Your task to perform on an android device: all mails in gmail Image 0: 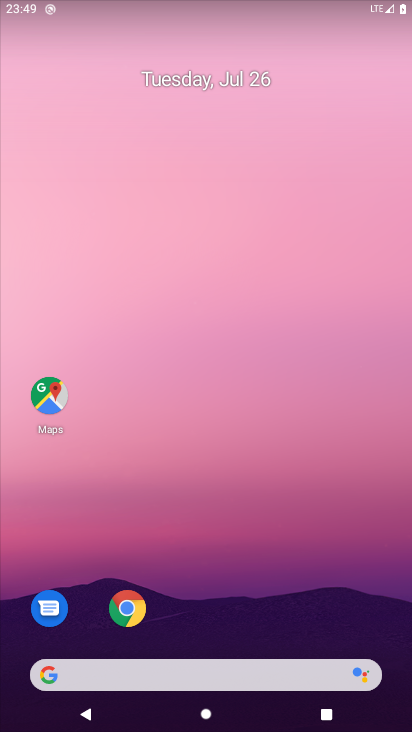
Step 0: press home button
Your task to perform on an android device: all mails in gmail Image 1: 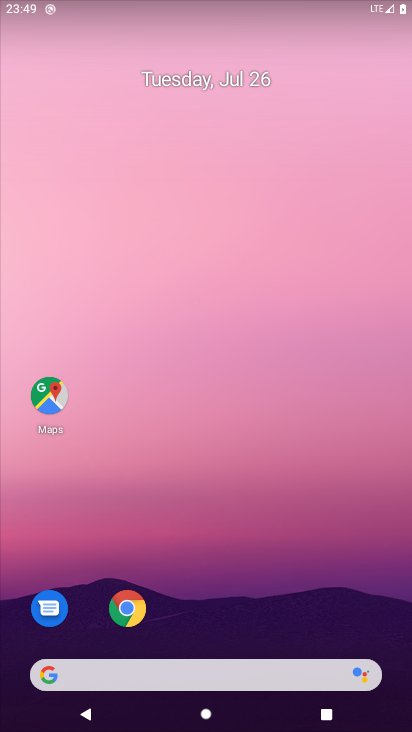
Step 1: drag from (283, 617) to (238, 110)
Your task to perform on an android device: all mails in gmail Image 2: 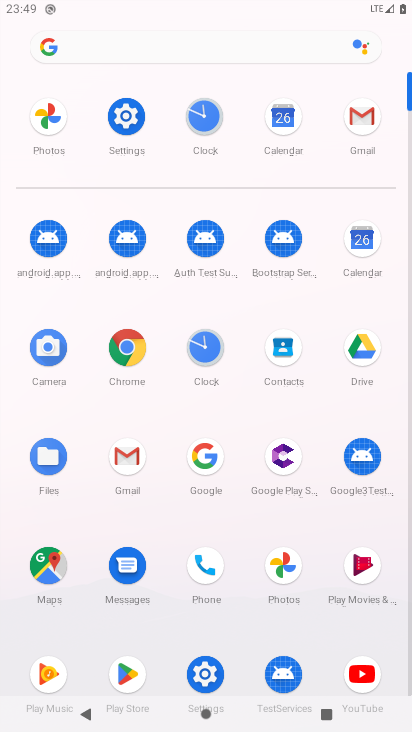
Step 2: click (363, 130)
Your task to perform on an android device: all mails in gmail Image 3: 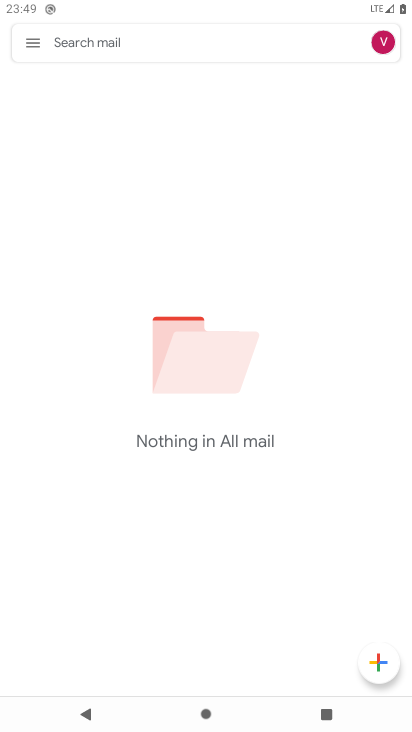
Step 3: click (33, 36)
Your task to perform on an android device: all mails in gmail Image 4: 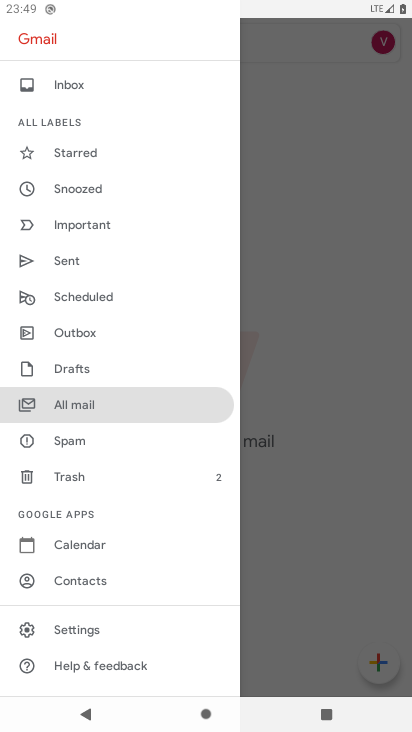
Step 4: click (97, 384)
Your task to perform on an android device: all mails in gmail Image 5: 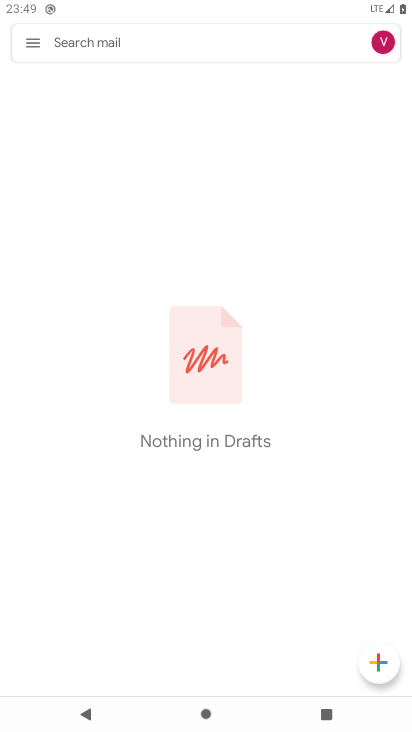
Step 5: task complete